Your task to perform on an android device: Check the news Image 0: 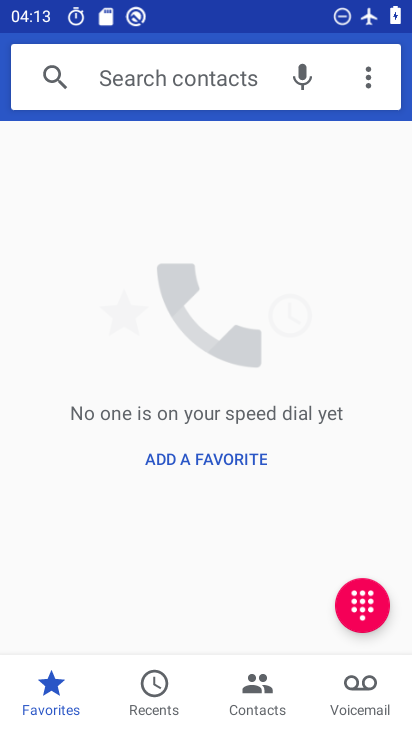
Step 0: press home button
Your task to perform on an android device: Check the news Image 1: 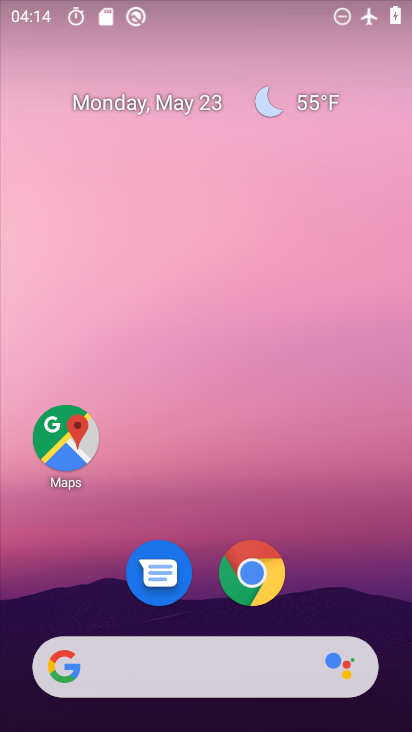
Step 1: click (250, 666)
Your task to perform on an android device: Check the news Image 2: 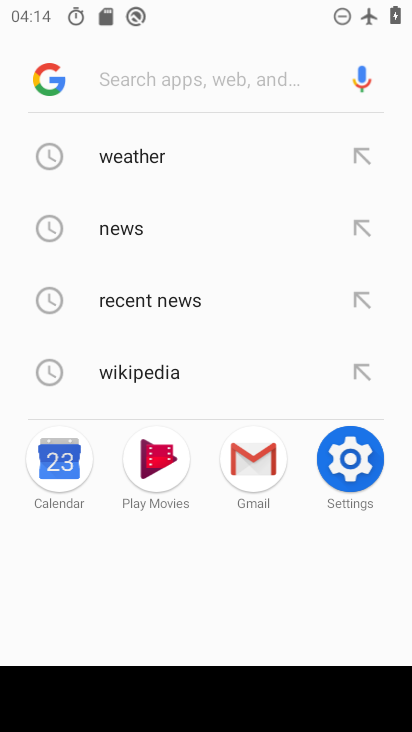
Step 2: click (148, 239)
Your task to perform on an android device: Check the news Image 3: 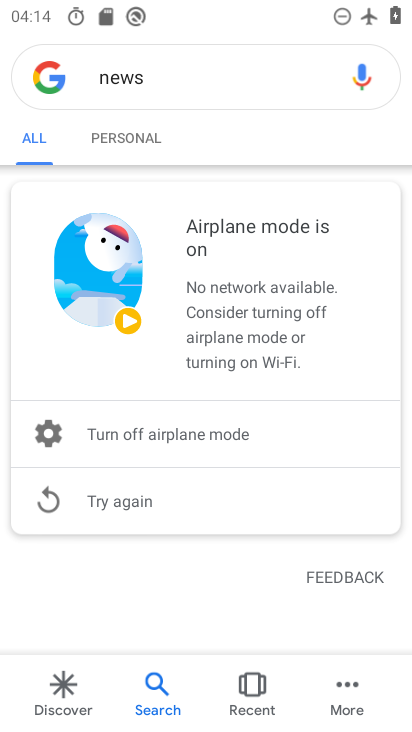
Step 3: task complete